Your task to perform on an android device: add a label to a message in the gmail app Image 0: 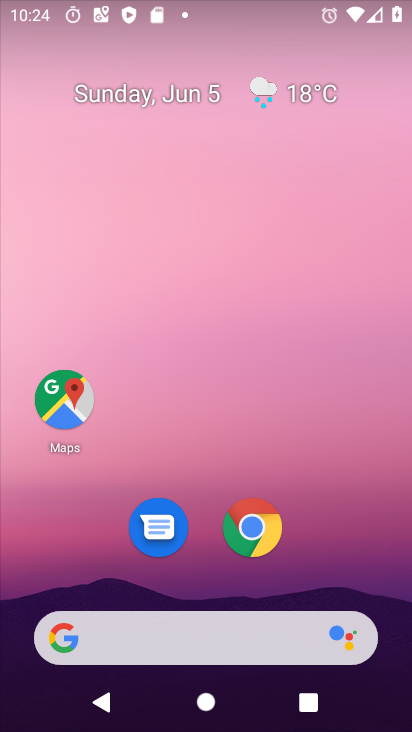
Step 0: drag from (353, 580) to (266, 51)
Your task to perform on an android device: add a label to a message in the gmail app Image 1: 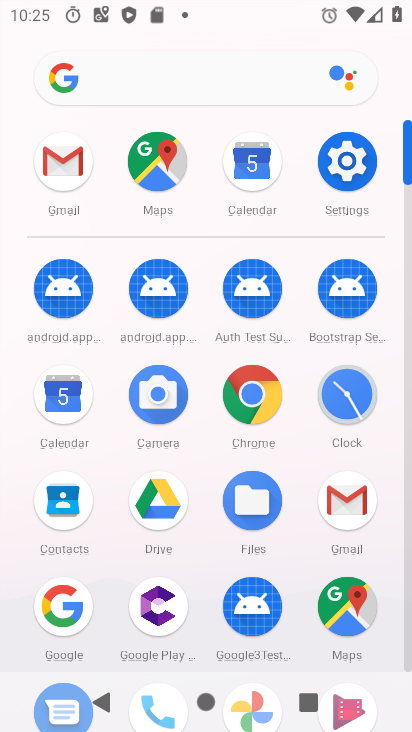
Step 1: click (358, 515)
Your task to perform on an android device: add a label to a message in the gmail app Image 2: 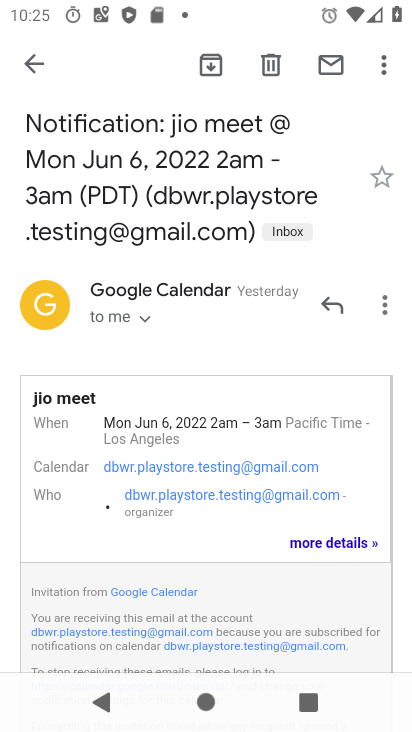
Step 2: click (56, 70)
Your task to perform on an android device: add a label to a message in the gmail app Image 3: 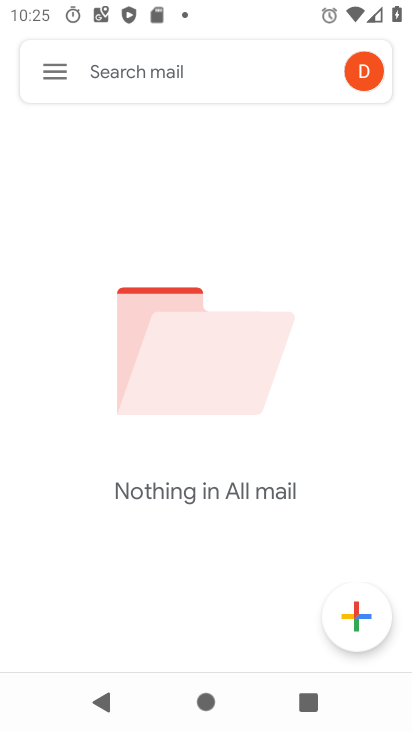
Step 3: task complete